Your task to perform on an android device: check google app version Image 0: 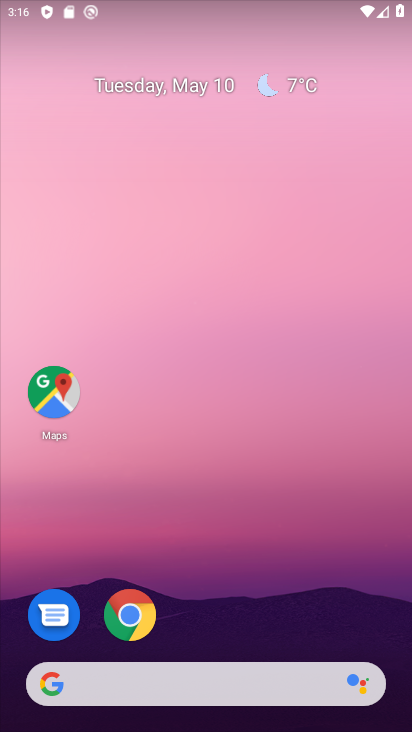
Step 0: drag from (220, 645) to (173, 48)
Your task to perform on an android device: check google app version Image 1: 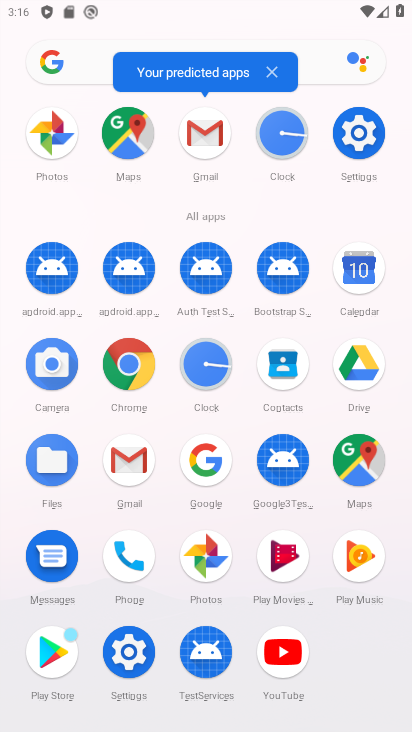
Step 1: click (206, 461)
Your task to perform on an android device: check google app version Image 2: 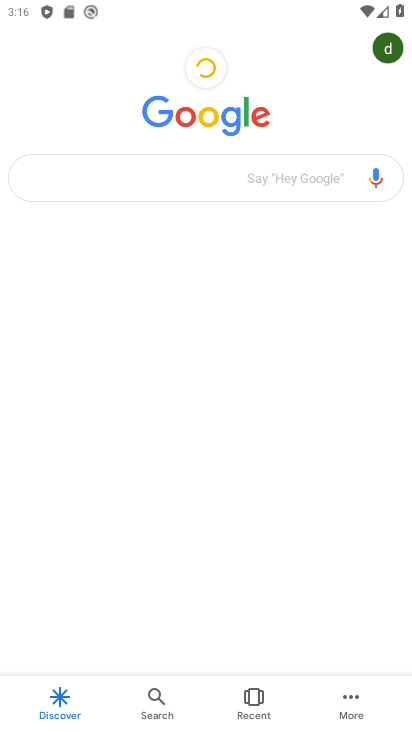
Step 2: click (357, 695)
Your task to perform on an android device: check google app version Image 3: 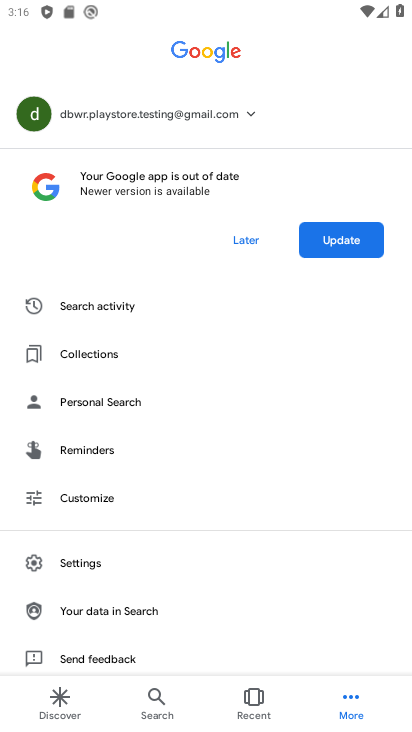
Step 3: click (105, 557)
Your task to perform on an android device: check google app version Image 4: 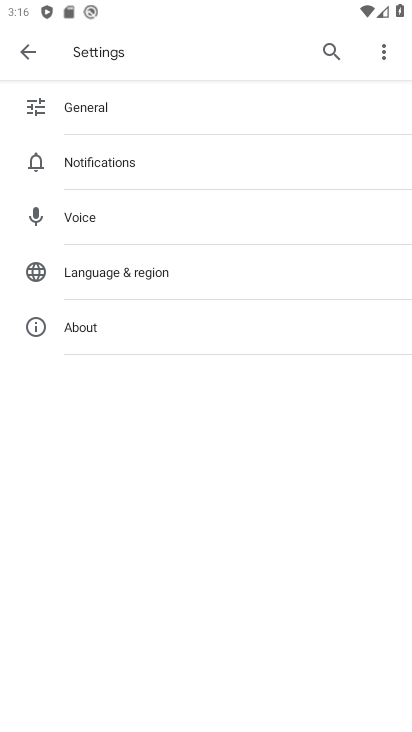
Step 4: click (128, 327)
Your task to perform on an android device: check google app version Image 5: 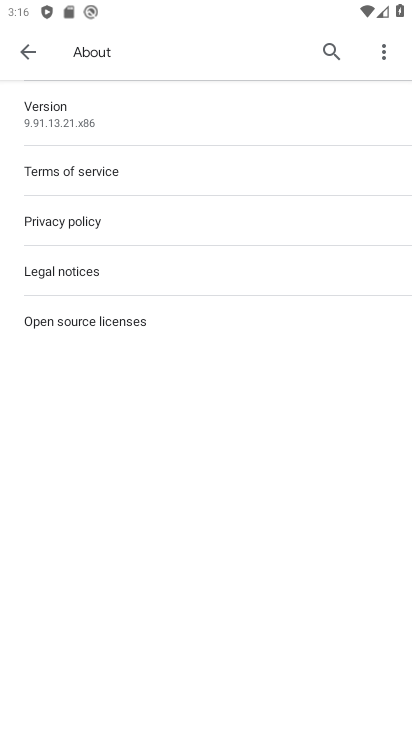
Step 5: click (100, 102)
Your task to perform on an android device: check google app version Image 6: 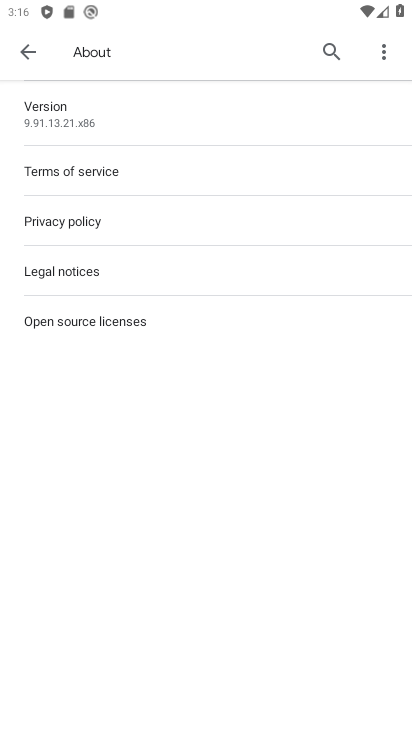
Step 6: task complete